Your task to perform on an android device: Open internet settings Image 0: 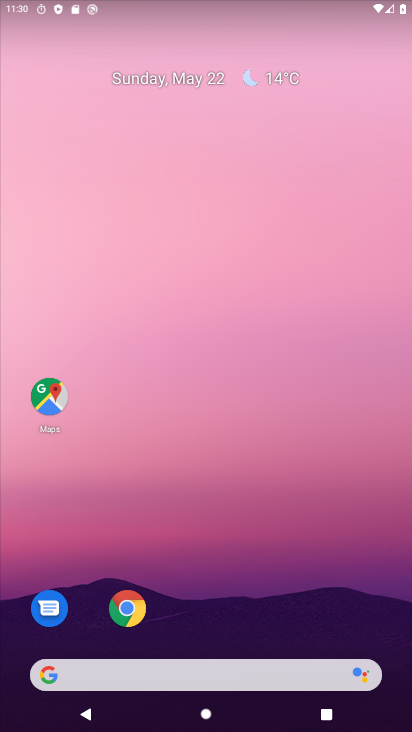
Step 0: drag from (277, 629) to (260, 121)
Your task to perform on an android device: Open internet settings Image 1: 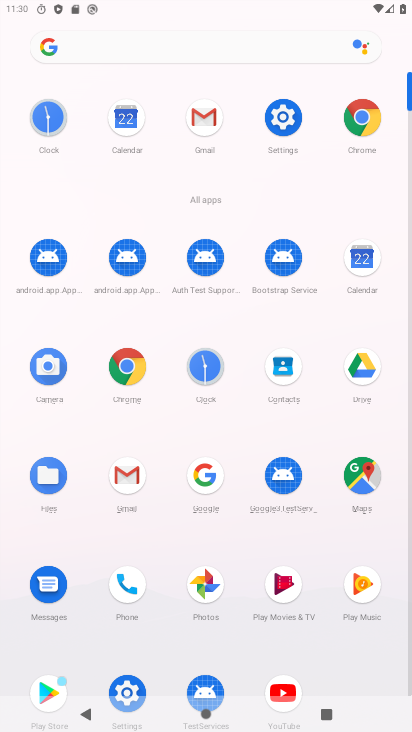
Step 1: click (283, 119)
Your task to perform on an android device: Open internet settings Image 2: 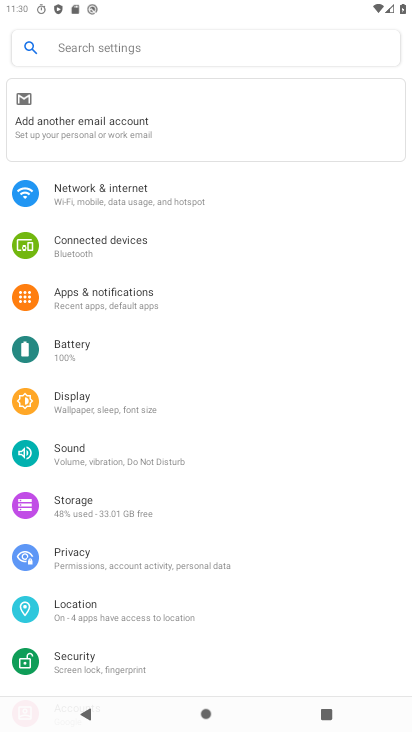
Step 2: click (230, 205)
Your task to perform on an android device: Open internet settings Image 3: 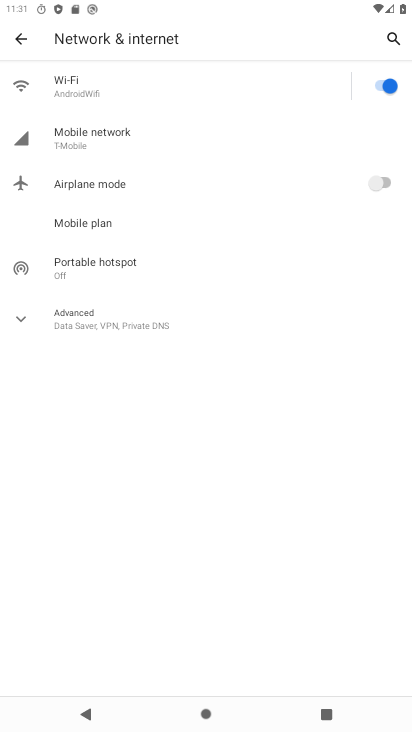
Step 3: task complete